Your task to perform on an android device: What's on my calendar today? Image 0: 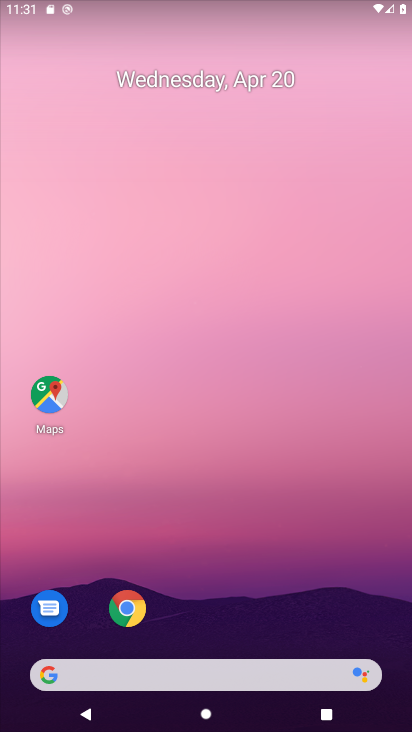
Step 0: drag from (206, 496) to (248, 113)
Your task to perform on an android device: What's on my calendar today? Image 1: 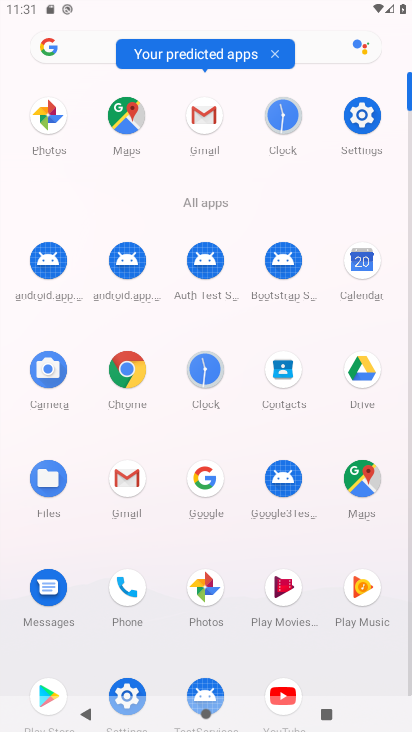
Step 1: click (363, 269)
Your task to perform on an android device: What's on my calendar today? Image 2: 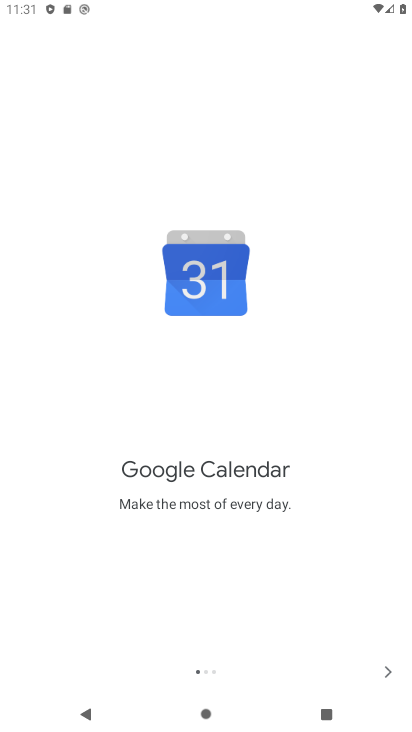
Step 2: click (387, 673)
Your task to perform on an android device: What's on my calendar today? Image 3: 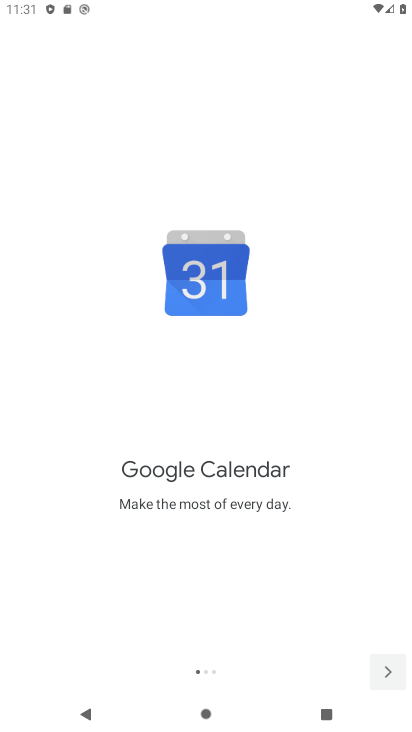
Step 3: click (387, 673)
Your task to perform on an android device: What's on my calendar today? Image 4: 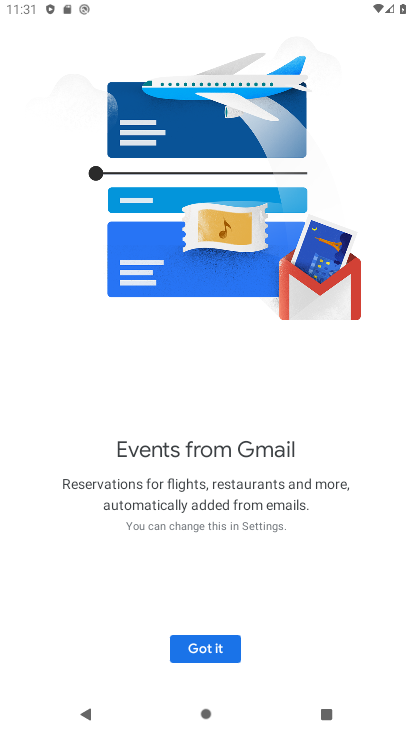
Step 4: click (387, 673)
Your task to perform on an android device: What's on my calendar today? Image 5: 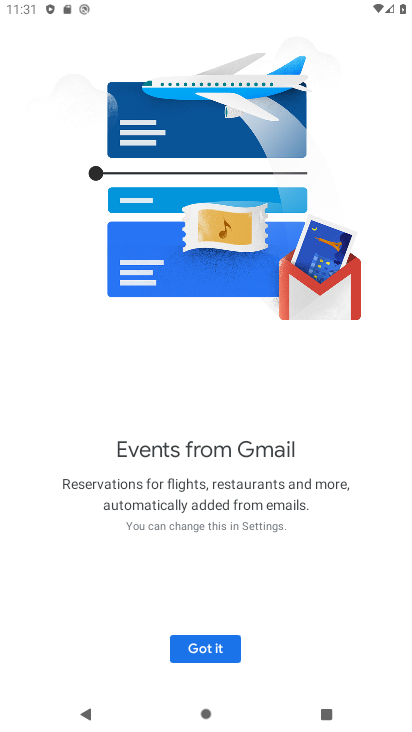
Step 5: click (222, 645)
Your task to perform on an android device: What's on my calendar today? Image 6: 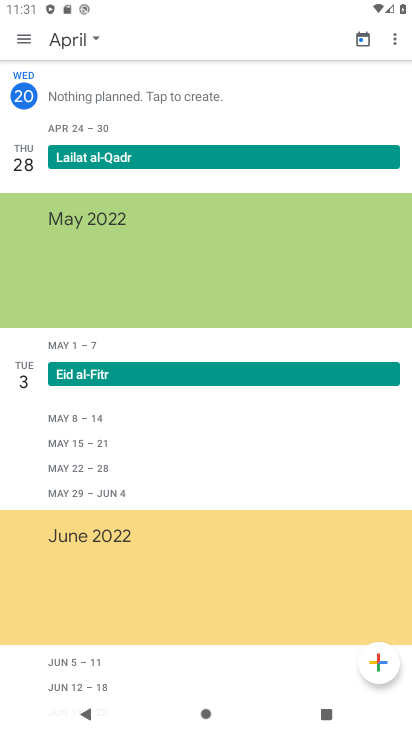
Step 6: click (34, 99)
Your task to perform on an android device: What's on my calendar today? Image 7: 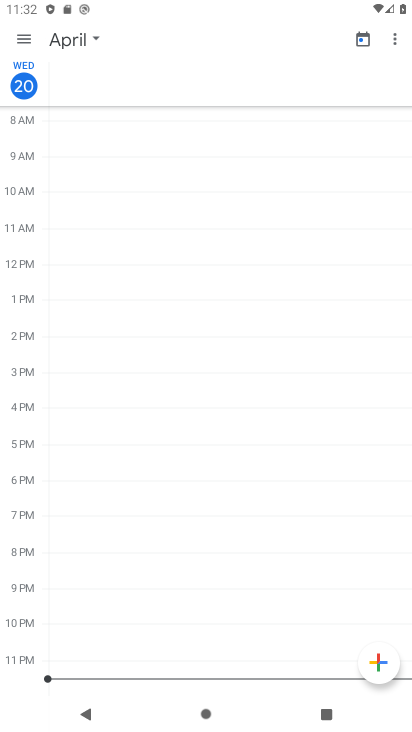
Step 7: task complete